Your task to perform on an android device: Open settings on Google Maps Image 0: 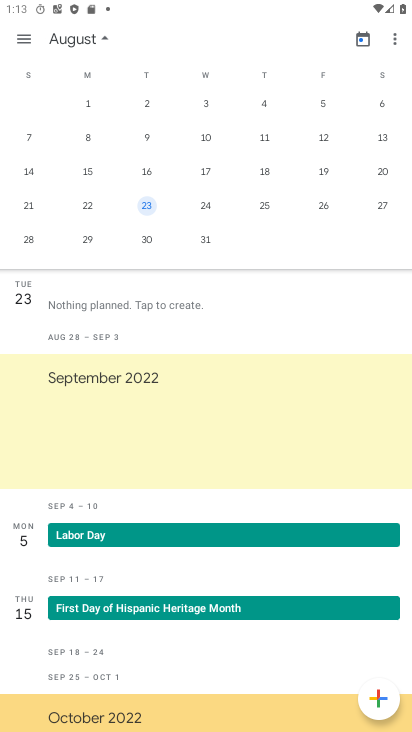
Step 0: press home button
Your task to perform on an android device: Open settings on Google Maps Image 1: 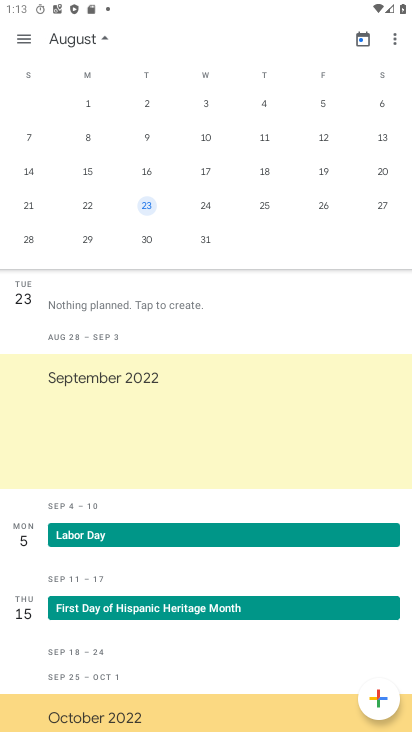
Step 1: press home button
Your task to perform on an android device: Open settings on Google Maps Image 2: 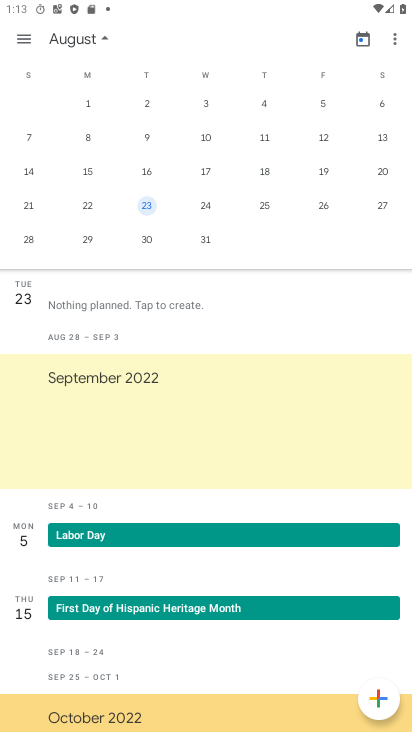
Step 2: drag from (188, 663) to (271, 119)
Your task to perform on an android device: Open settings on Google Maps Image 3: 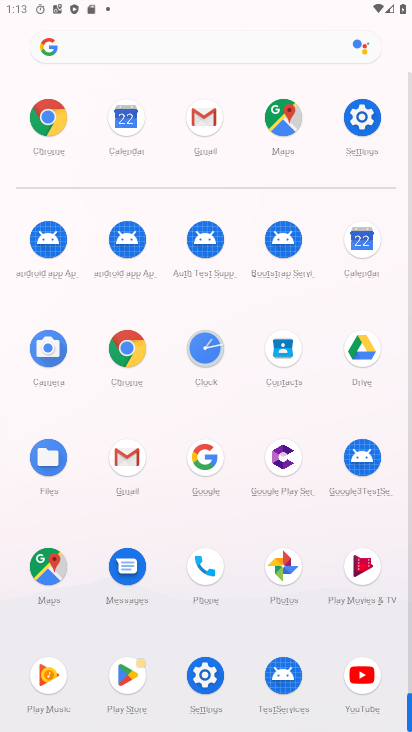
Step 3: click (59, 572)
Your task to perform on an android device: Open settings on Google Maps Image 4: 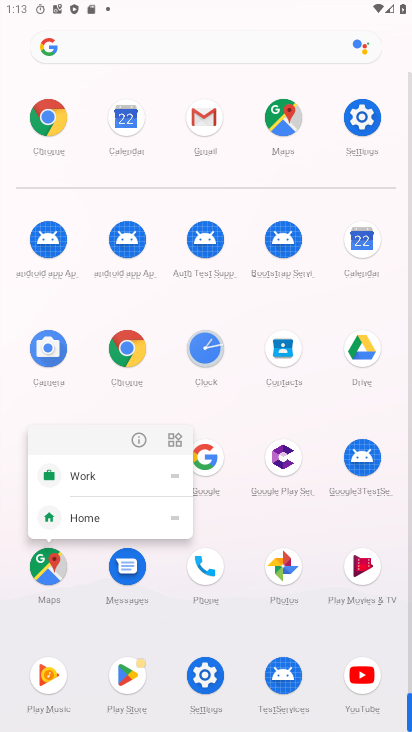
Step 4: click (135, 430)
Your task to perform on an android device: Open settings on Google Maps Image 5: 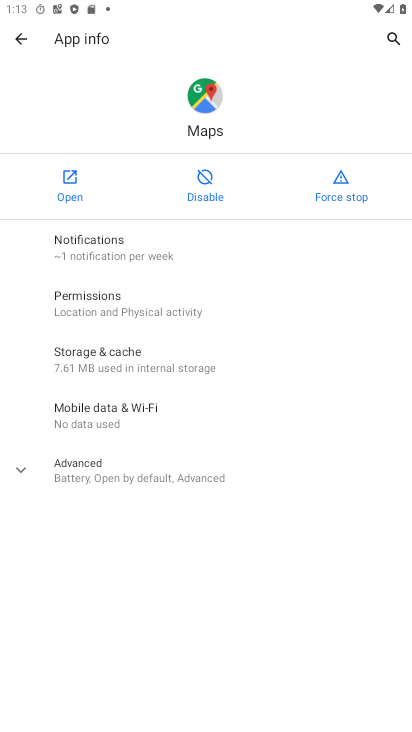
Step 5: click (73, 186)
Your task to perform on an android device: Open settings on Google Maps Image 6: 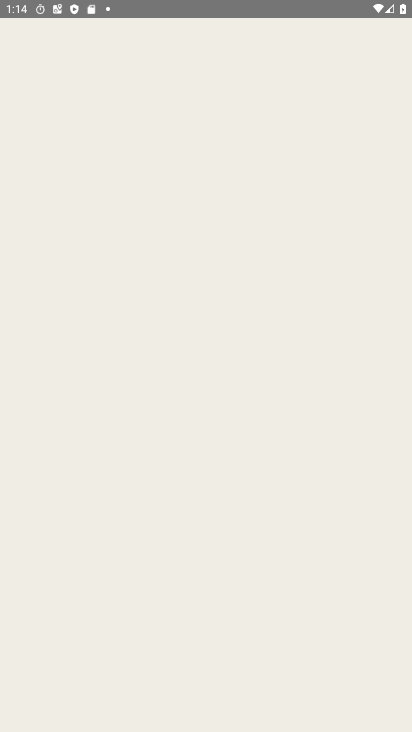
Step 6: drag from (242, 454) to (242, 132)
Your task to perform on an android device: Open settings on Google Maps Image 7: 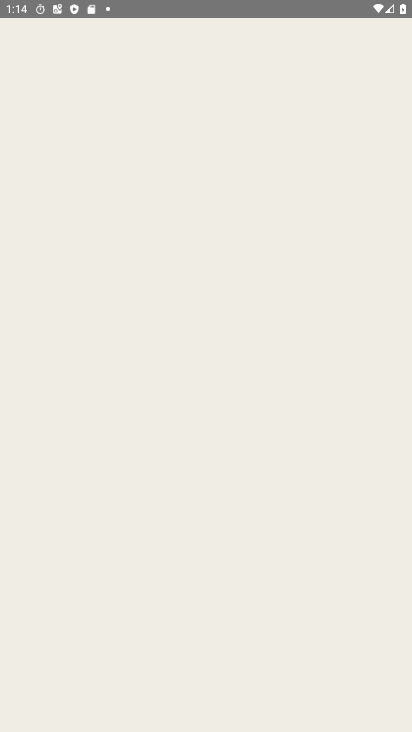
Step 7: drag from (230, 463) to (231, 309)
Your task to perform on an android device: Open settings on Google Maps Image 8: 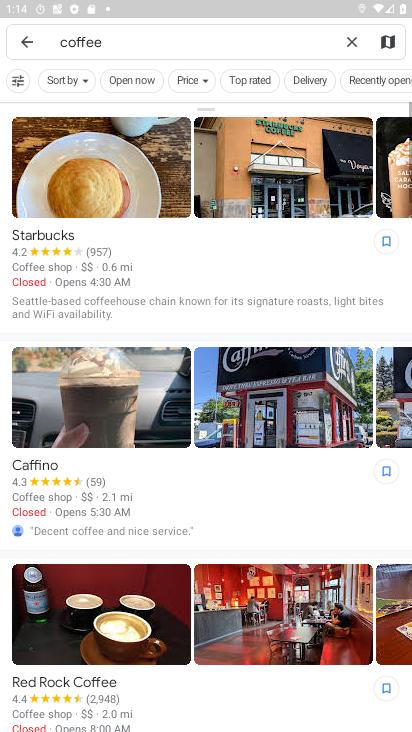
Step 8: click (348, 40)
Your task to perform on an android device: Open settings on Google Maps Image 9: 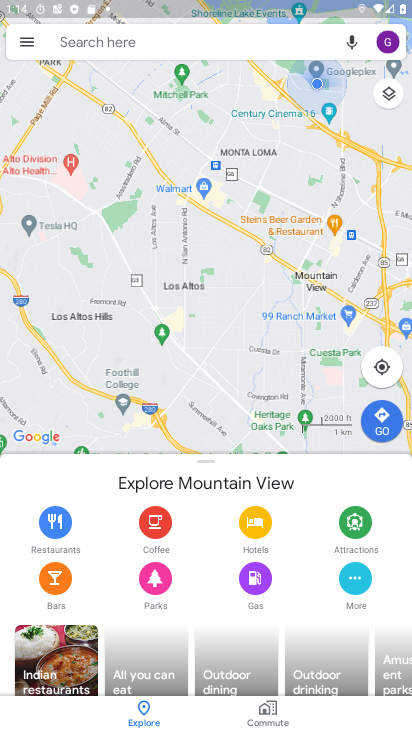
Step 9: click (71, 36)
Your task to perform on an android device: Open settings on Google Maps Image 10: 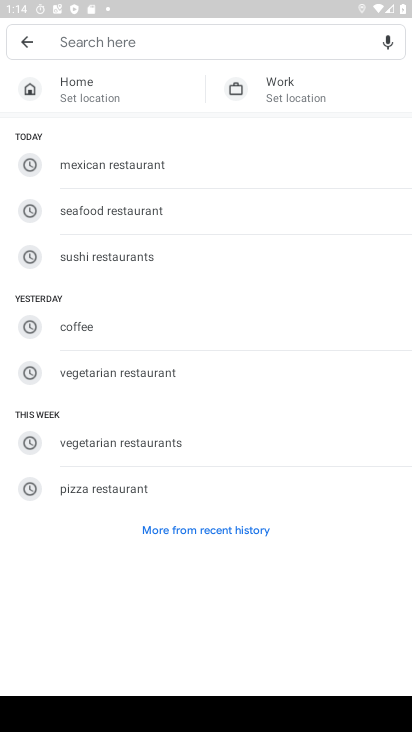
Step 10: click (28, 48)
Your task to perform on an android device: Open settings on Google Maps Image 11: 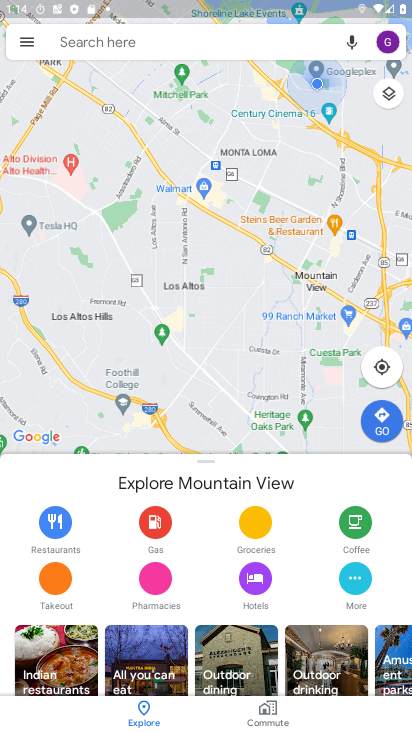
Step 11: click (31, 40)
Your task to perform on an android device: Open settings on Google Maps Image 12: 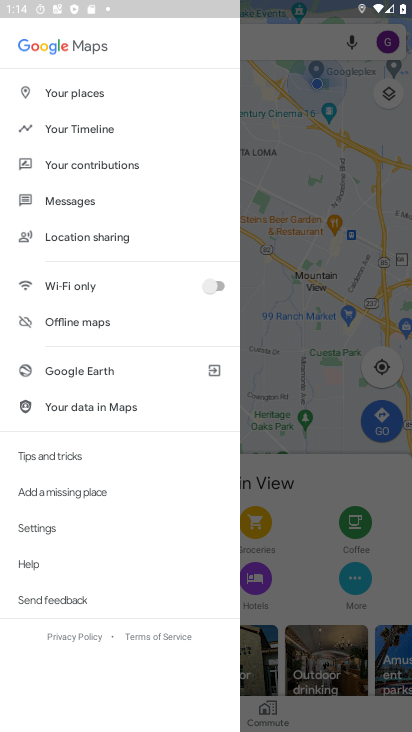
Step 12: click (82, 533)
Your task to perform on an android device: Open settings on Google Maps Image 13: 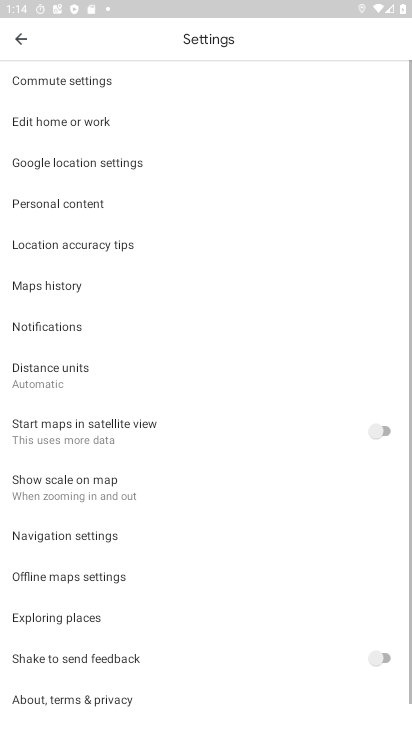
Step 13: task complete